Your task to perform on an android device: Clear all items from cart on bestbuy. Add asus zenbook to the cart on bestbuy, then select checkout. Image 0: 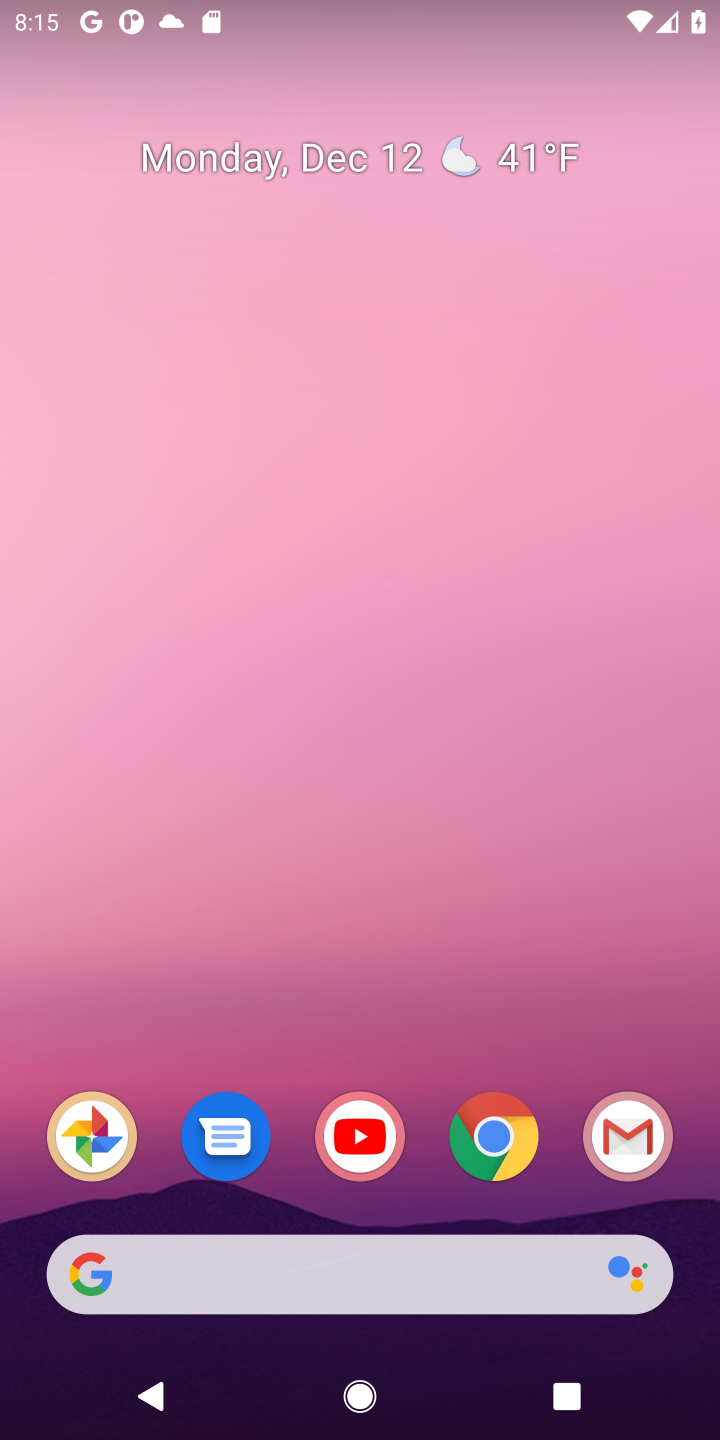
Step 0: click (508, 1144)
Your task to perform on an android device: Clear all items from cart on bestbuy. Add asus zenbook to the cart on bestbuy, then select checkout. Image 1: 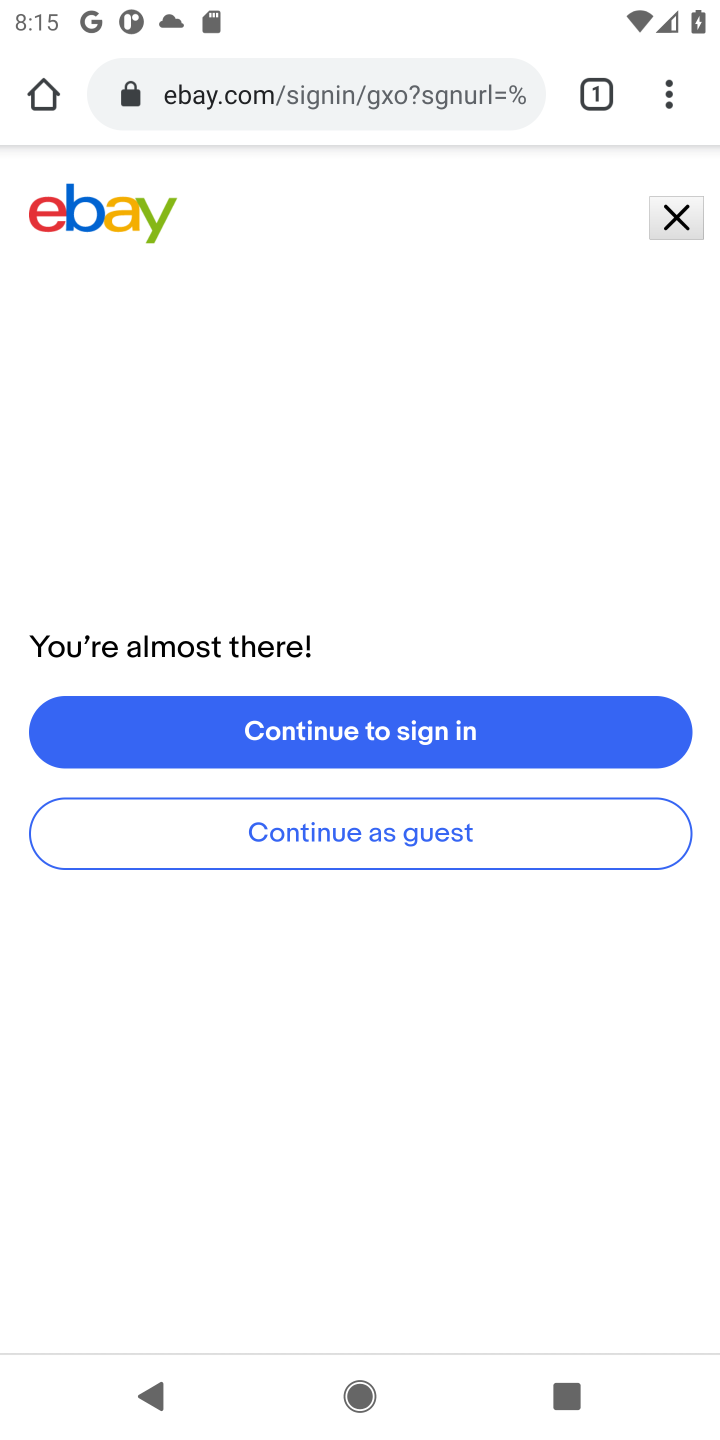
Step 1: click (292, 102)
Your task to perform on an android device: Clear all items from cart on bestbuy. Add asus zenbook to the cart on bestbuy, then select checkout. Image 2: 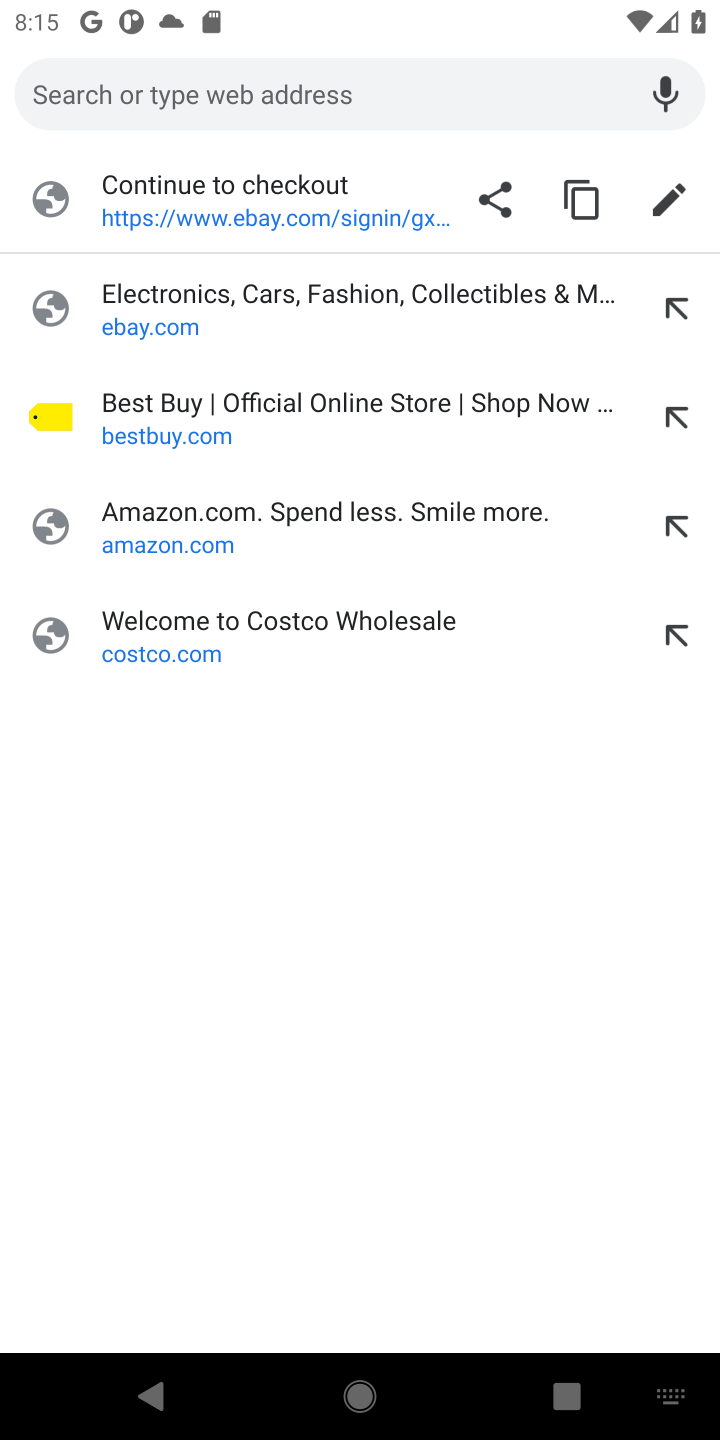
Step 2: click (156, 436)
Your task to perform on an android device: Clear all items from cart on bestbuy. Add asus zenbook to the cart on bestbuy, then select checkout. Image 3: 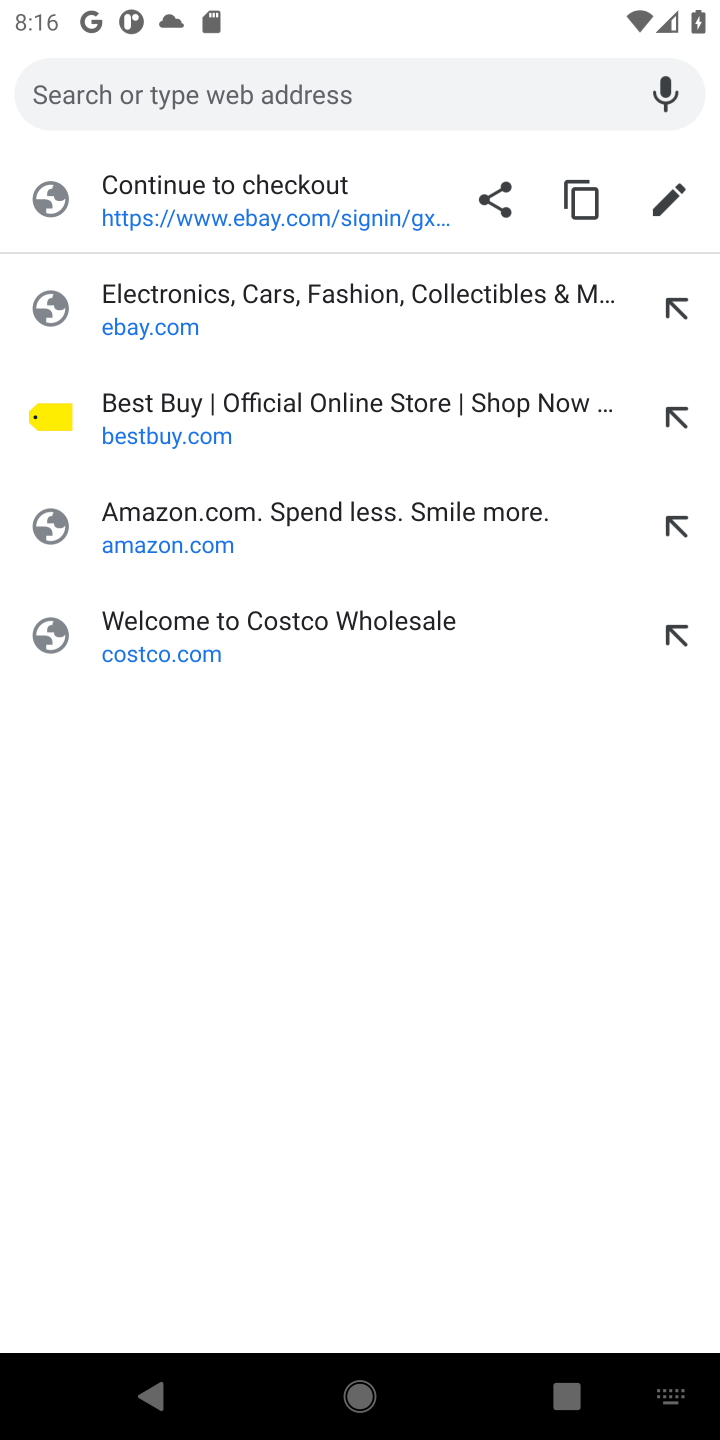
Step 3: click (134, 405)
Your task to perform on an android device: Clear all items from cart on bestbuy. Add asus zenbook to the cart on bestbuy, then select checkout. Image 4: 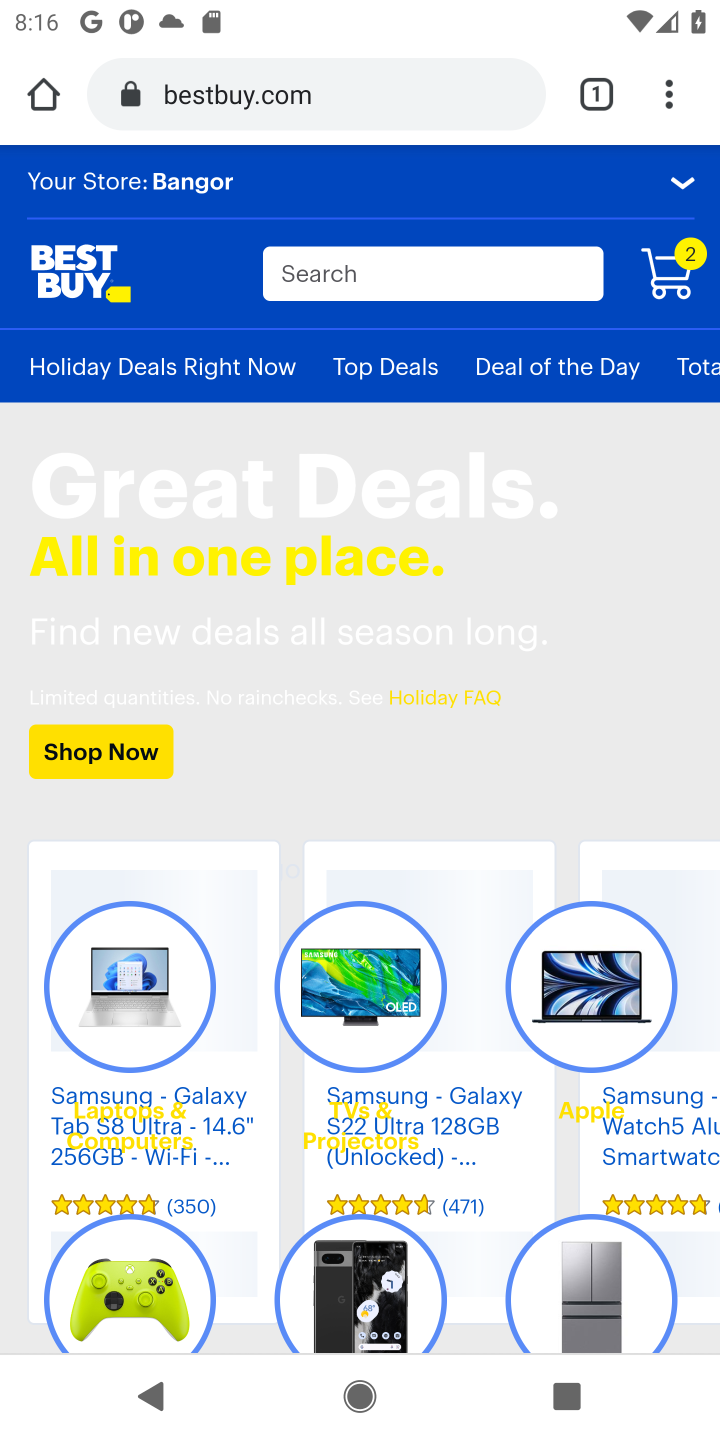
Step 4: click (676, 277)
Your task to perform on an android device: Clear all items from cart on bestbuy. Add asus zenbook to the cart on bestbuy, then select checkout. Image 5: 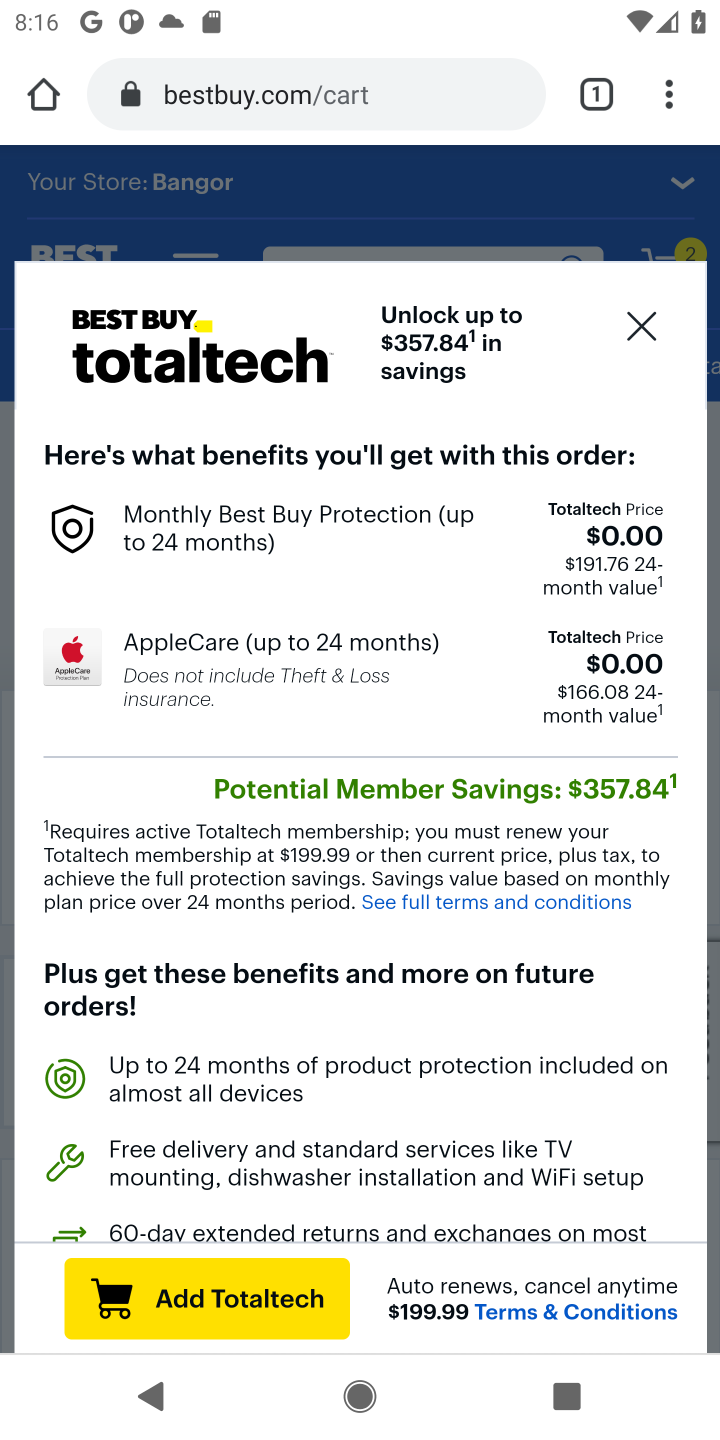
Step 5: click (641, 332)
Your task to perform on an android device: Clear all items from cart on bestbuy. Add asus zenbook to the cart on bestbuy, then select checkout. Image 6: 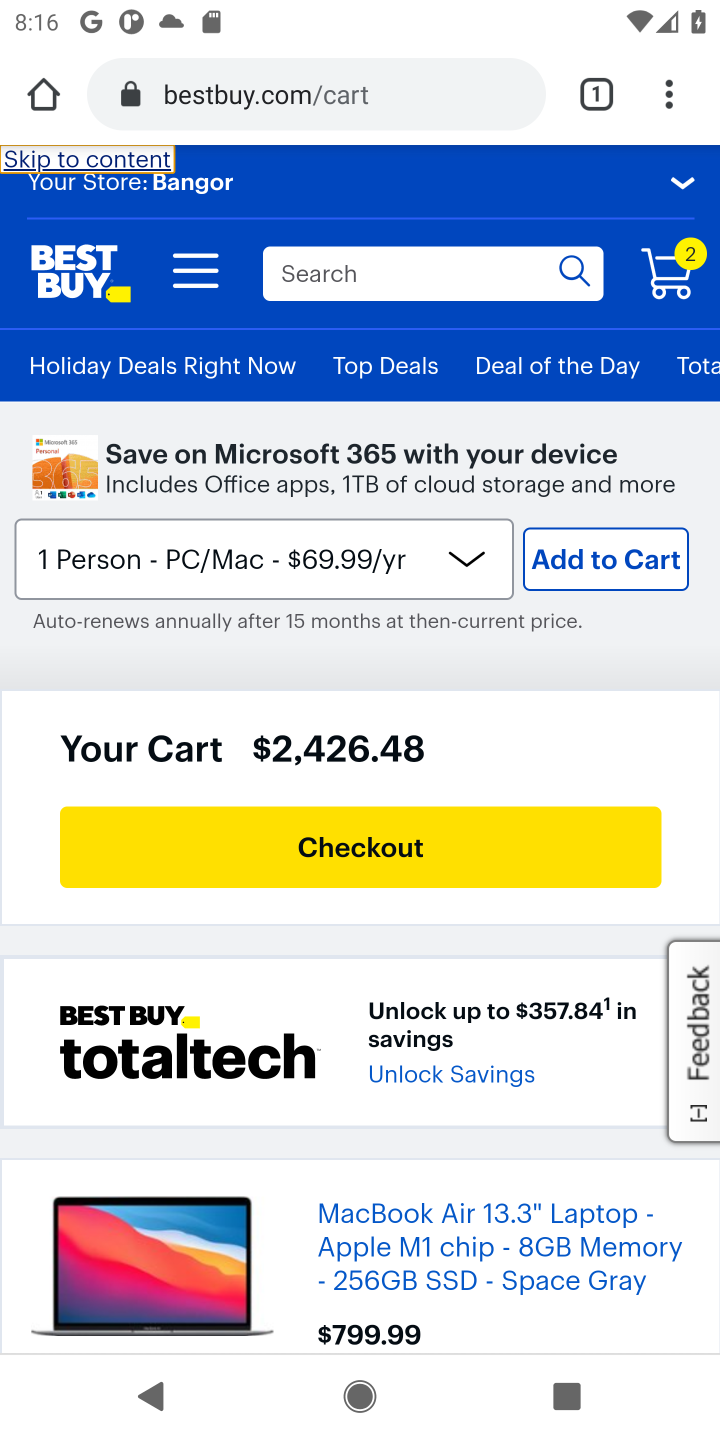
Step 6: drag from (327, 906) to (404, 495)
Your task to perform on an android device: Clear all items from cart on bestbuy. Add asus zenbook to the cart on bestbuy, then select checkout. Image 7: 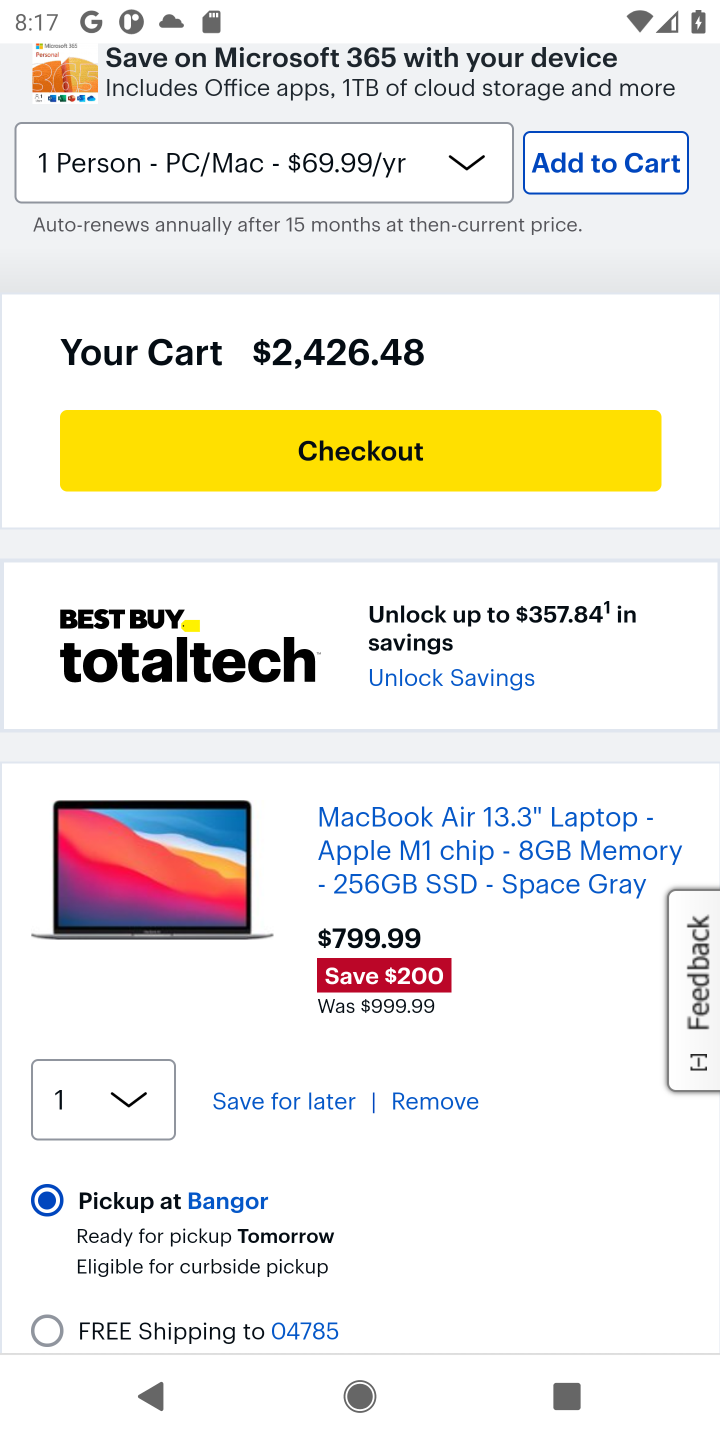
Step 7: click (441, 1110)
Your task to perform on an android device: Clear all items from cart on bestbuy. Add asus zenbook to the cart on bestbuy, then select checkout. Image 8: 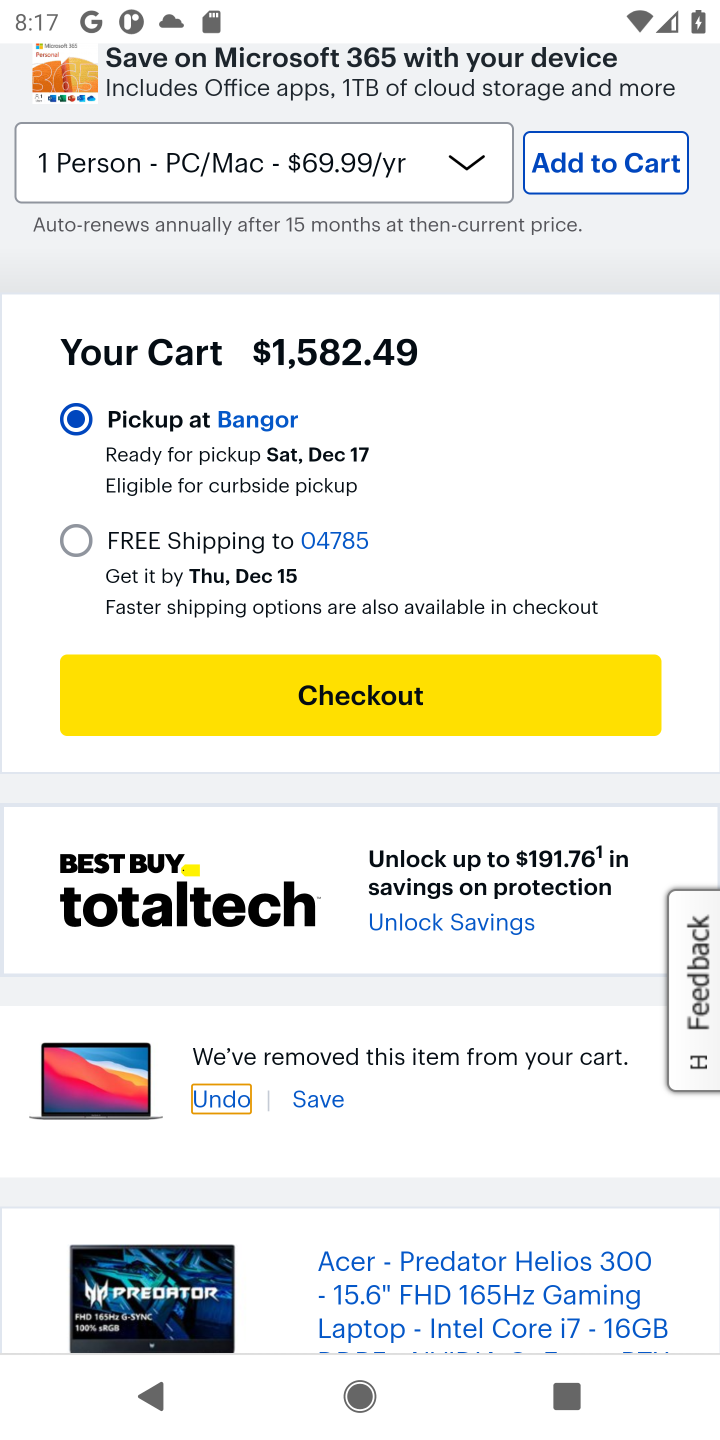
Step 8: drag from (443, 1075) to (438, 633)
Your task to perform on an android device: Clear all items from cart on bestbuy. Add asus zenbook to the cart on bestbuy, then select checkout. Image 9: 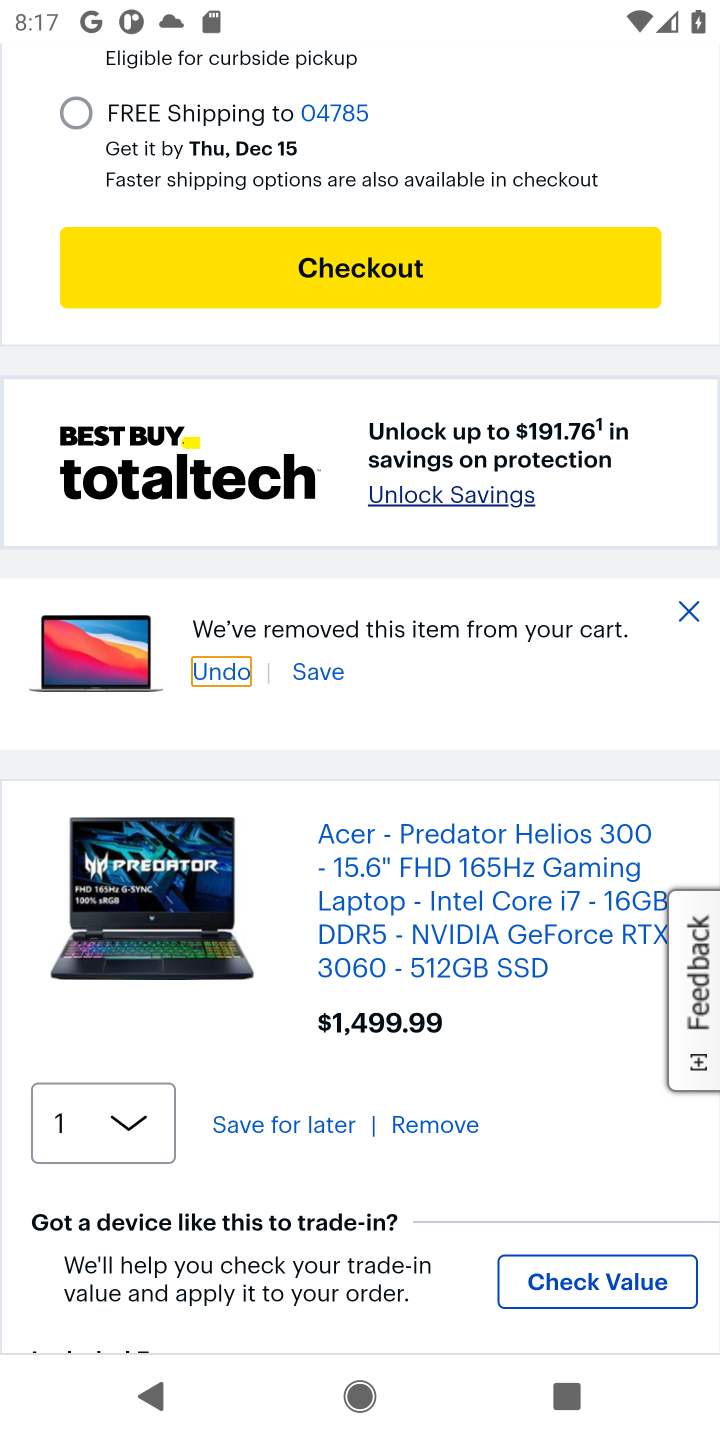
Step 9: click (425, 1119)
Your task to perform on an android device: Clear all items from cart on bestbuy. Add asus zenbook to the cart on bestbuy, then select checkout. Image 10: 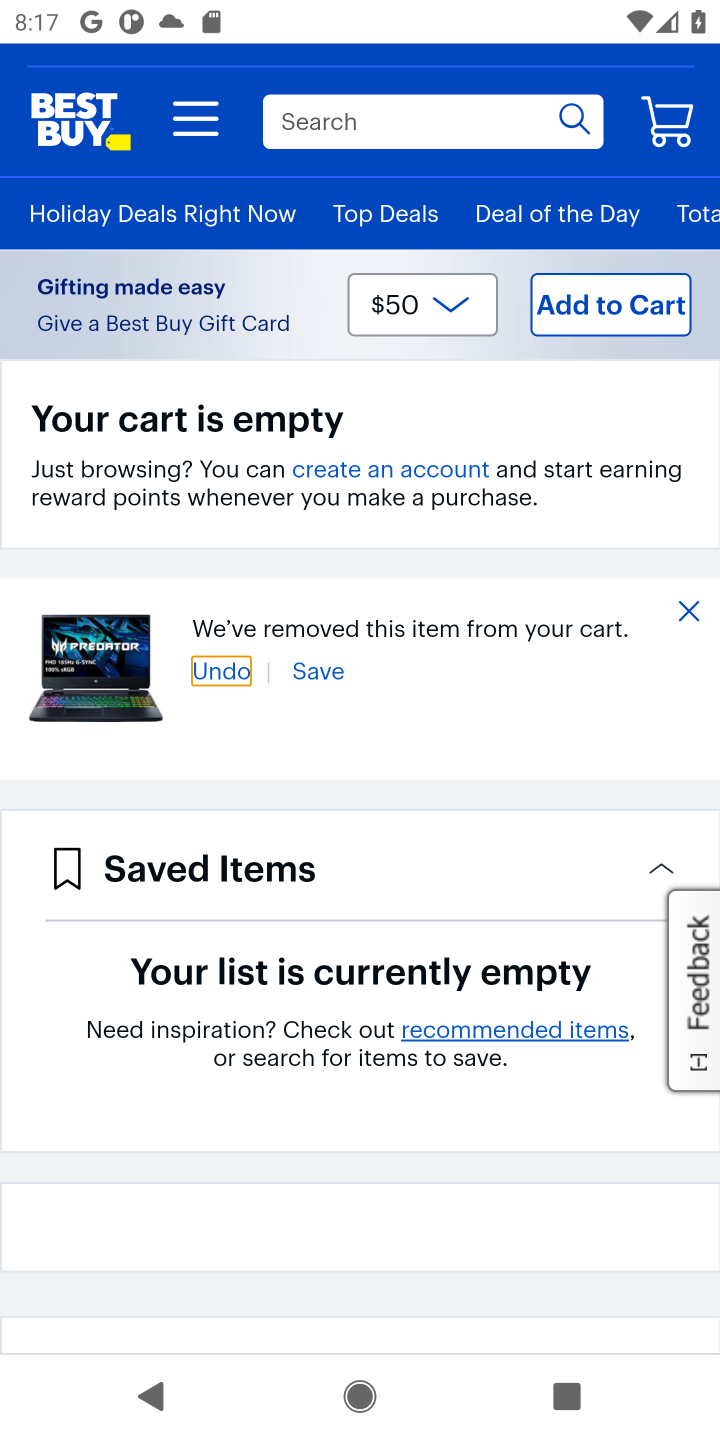
Step 10: drag from (353, 639) to (354, 940)
Your task to perform on an android device: Clear all items from cart on bestbuy. Add asus zenbook to the cart on bestbuy, then select checkout. Image 11: 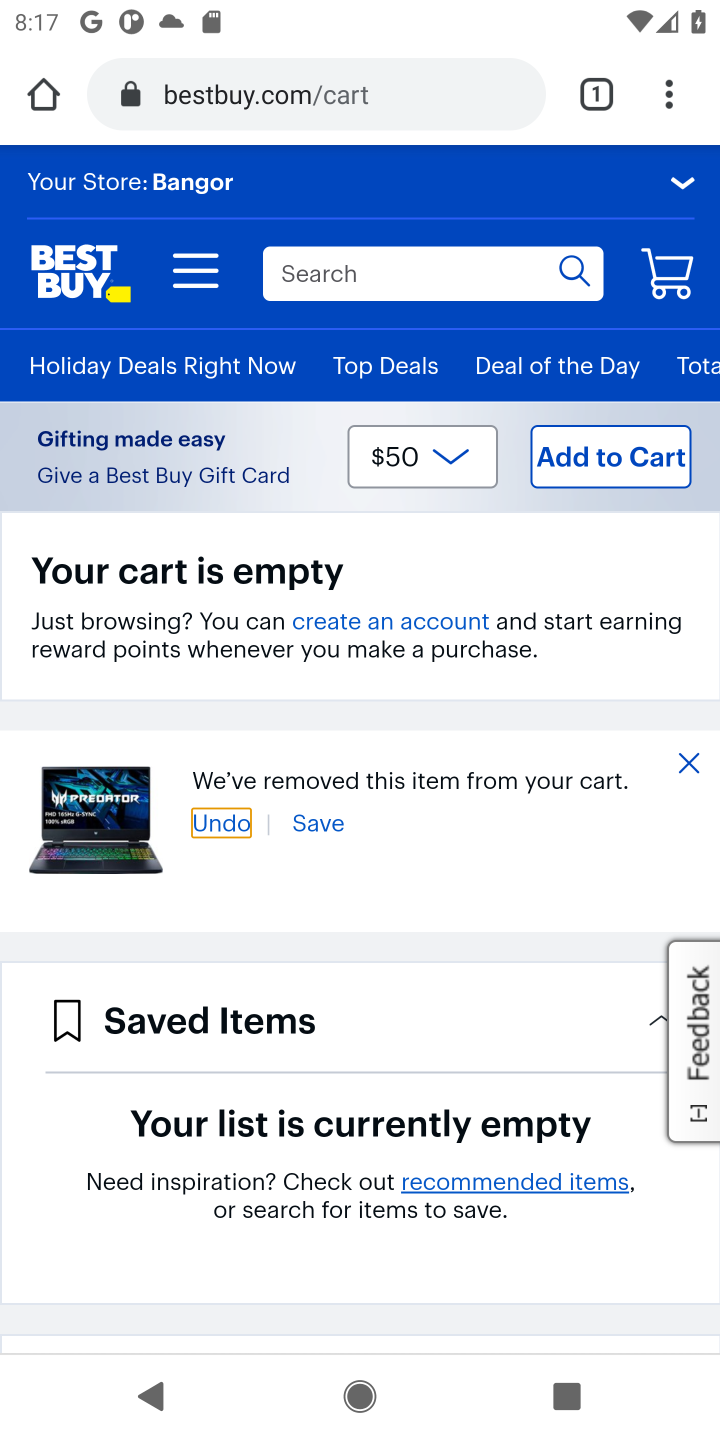
Step 11: click (335, 282)
Your task to perform on an android device: Clear all items from cart on bestbuy. Add asus zenbook to the cart on bestbuy, then select checkout. Image 12: 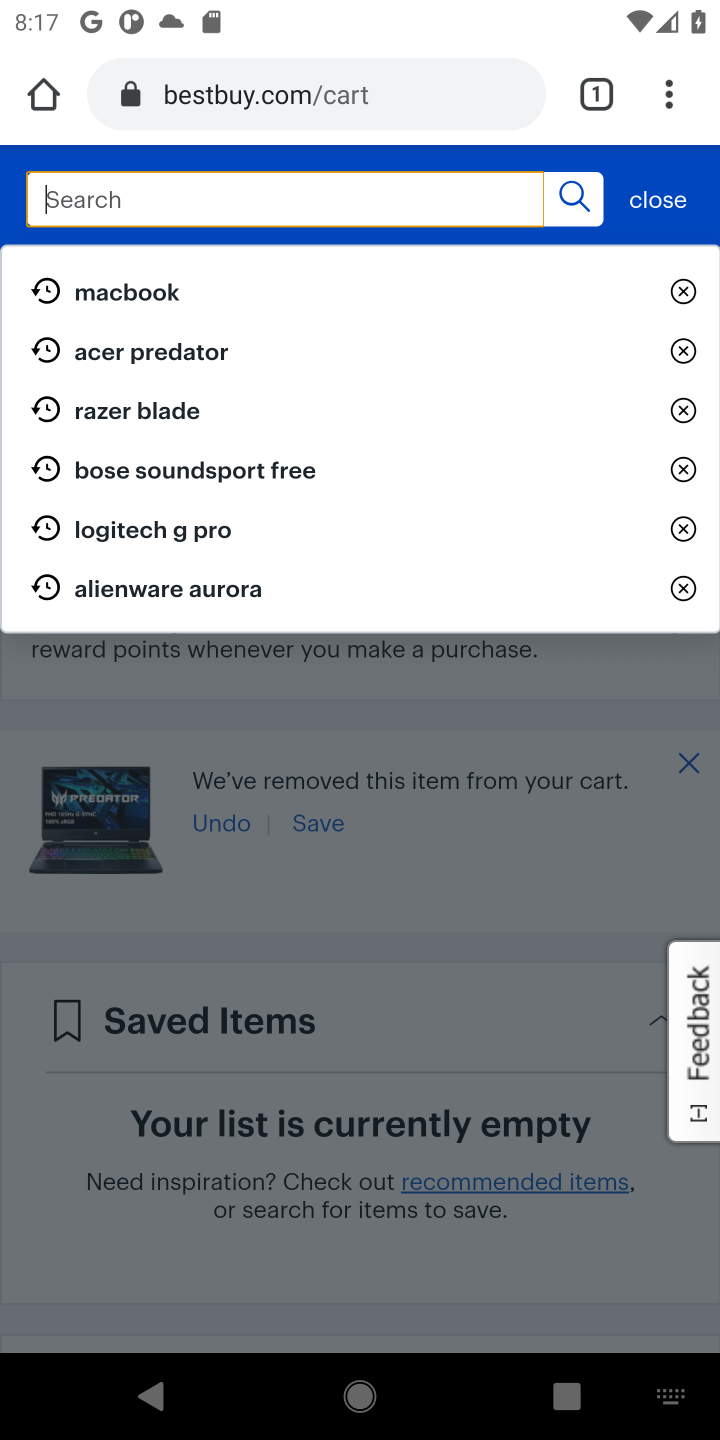
Step 12: type "asus zenbook "
Your task to perform on an android device: Clear all items from cart on bestbuy. Add asus zenbook to the cart on bestbuy, then select checkout. Image 13: 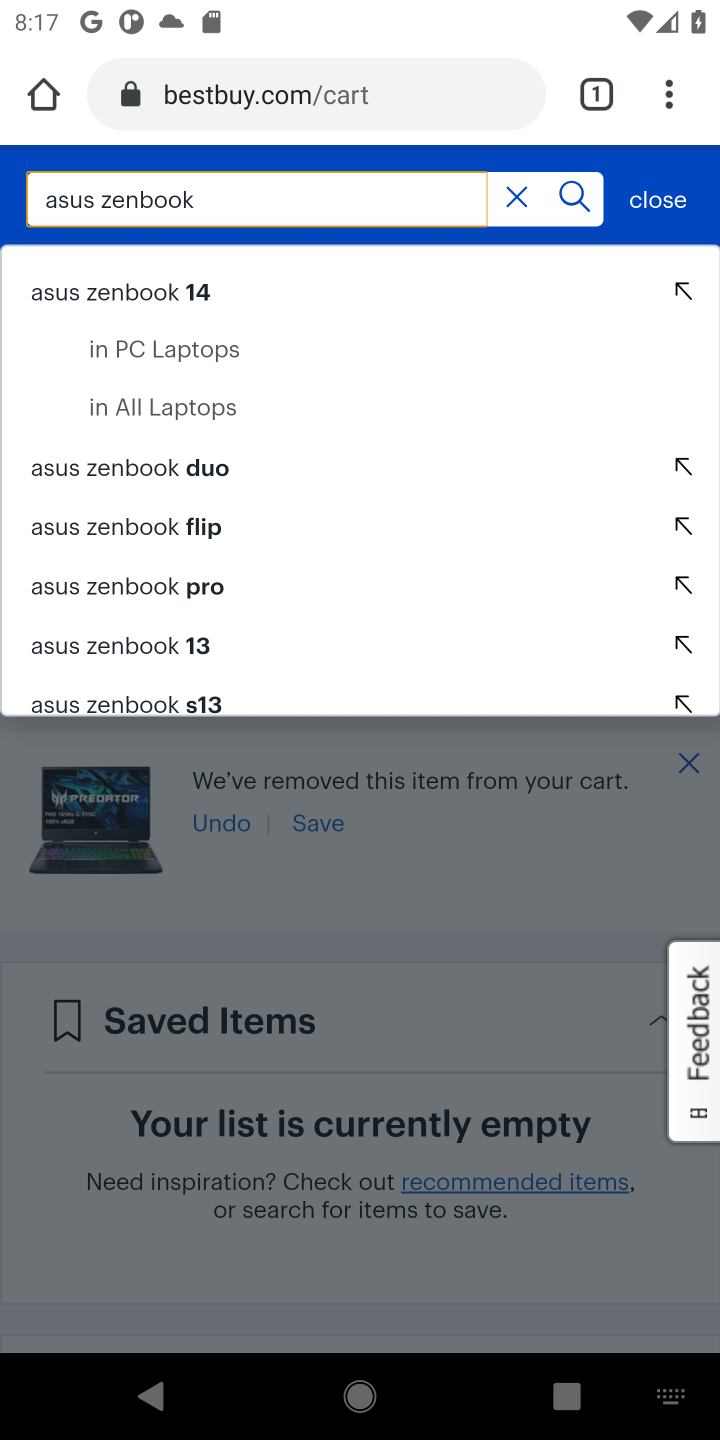
Step 13: click (567, 208)
Your task to perform on an android device: Clear all items from cart on bestbuy. Add asus zenbook to the cart on bestbuy, then select checkout. Image 14: 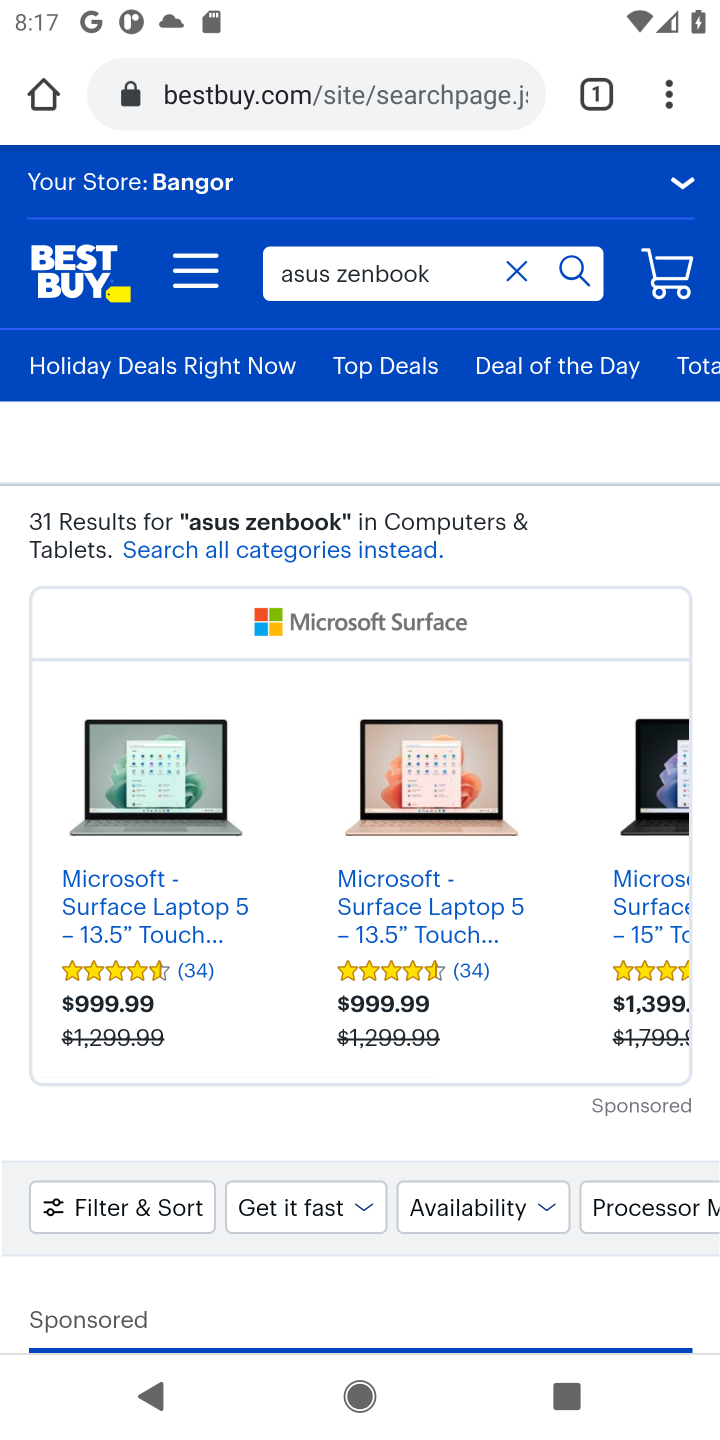
Step 14: drag from (322, 994) to (286, 421)
Your task to perform on an android device: Clear all items from cart on bestbuy. Add asus zenbook to the cart on bestbuy, then select checkout. Image 15: 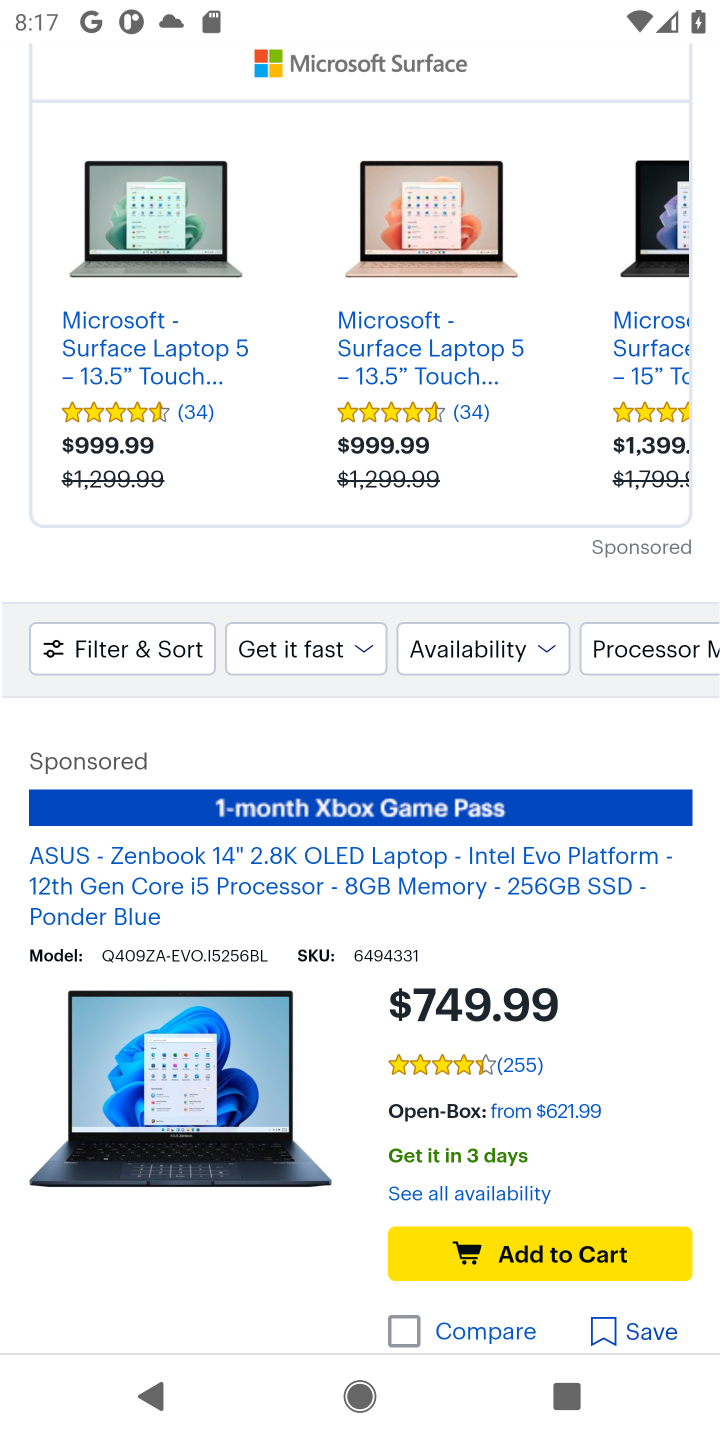
Step 15: drag from (319, 947) to (323, 594)
Your task to perform on an android device: Clear all items from cart on bestbuy. Add asus zenbook to the cart on bestbuy, then select checkout. Image 16: 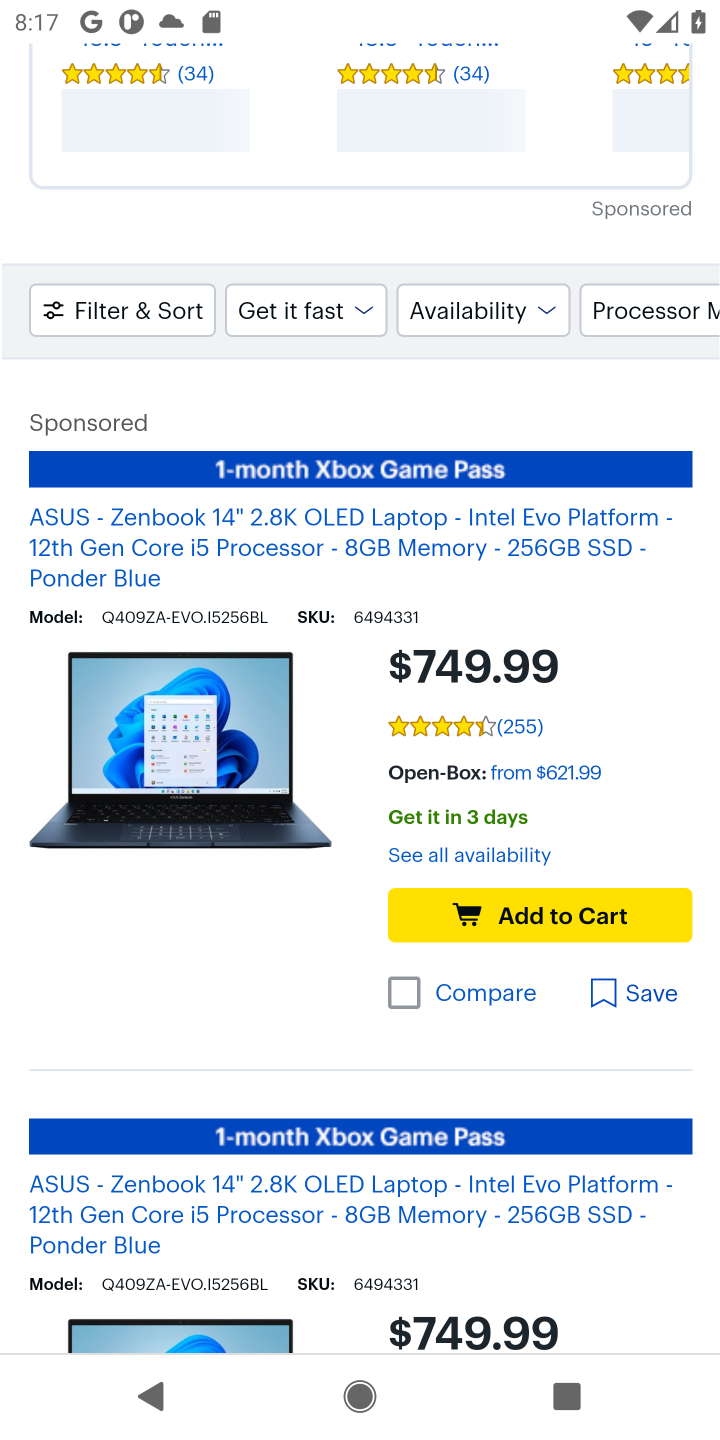
Step 16: click (534, 930)
Your task to perform on an android device: Clear all items from cart on bestbuy. Add asus zenbook to the cart on bestbuy, then select checkout. Image 17: 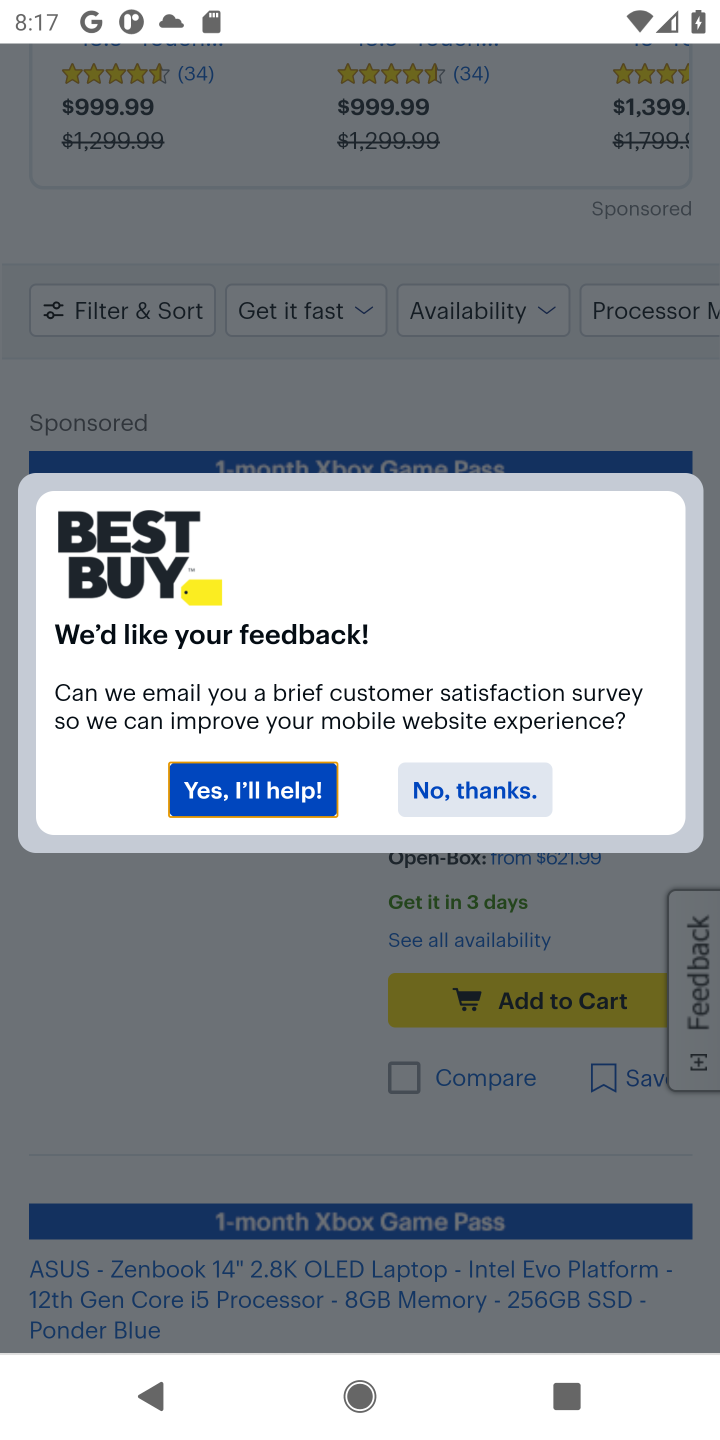
Step 17: click (438, 794)
Your task to perform on an android device: Clear all items from cart on bestbuy. Add asus zenbook to the cart on bestbuy, then select checkout. Image 18: 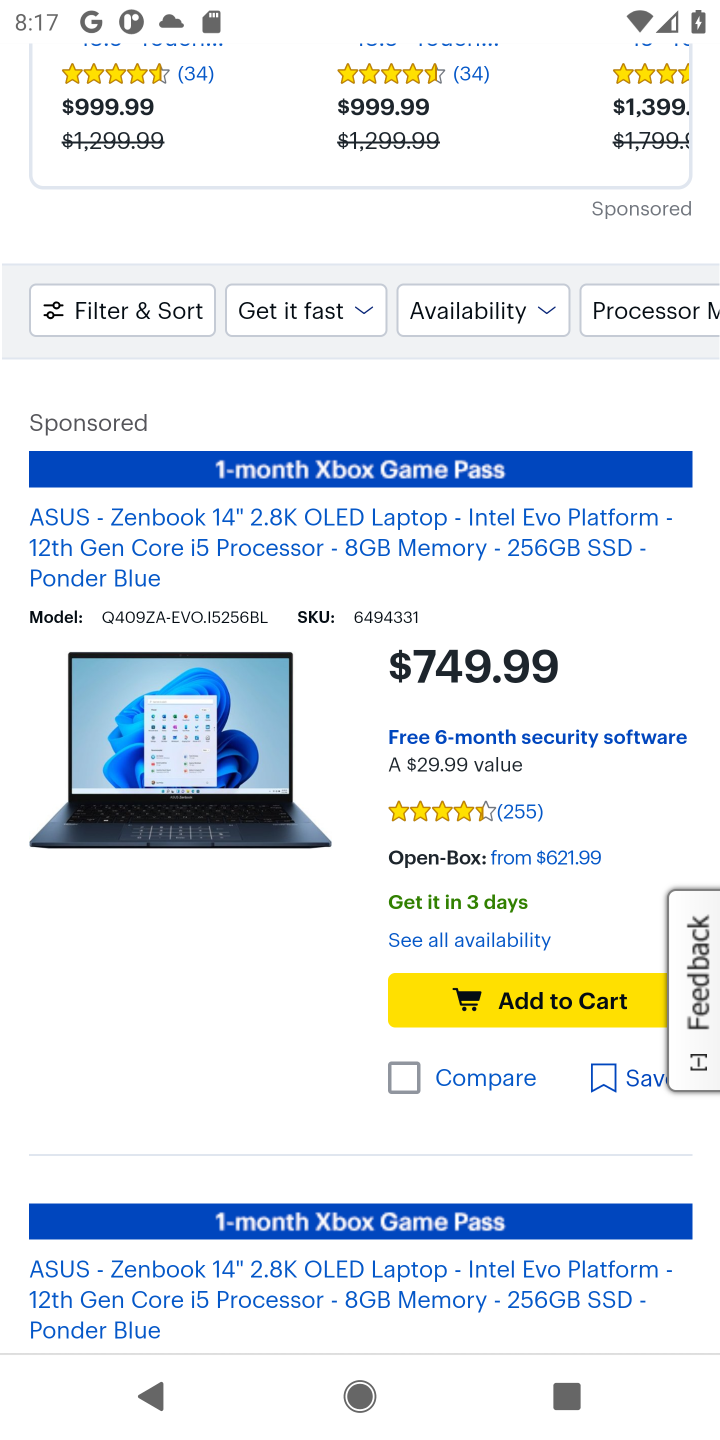
Step 18: click (505, 1006)
Your task to perform on an android device: Clear all items from cart on bestbuy. Add asus zenbook to the cart on bestbuy, then select checkout. Image 19: 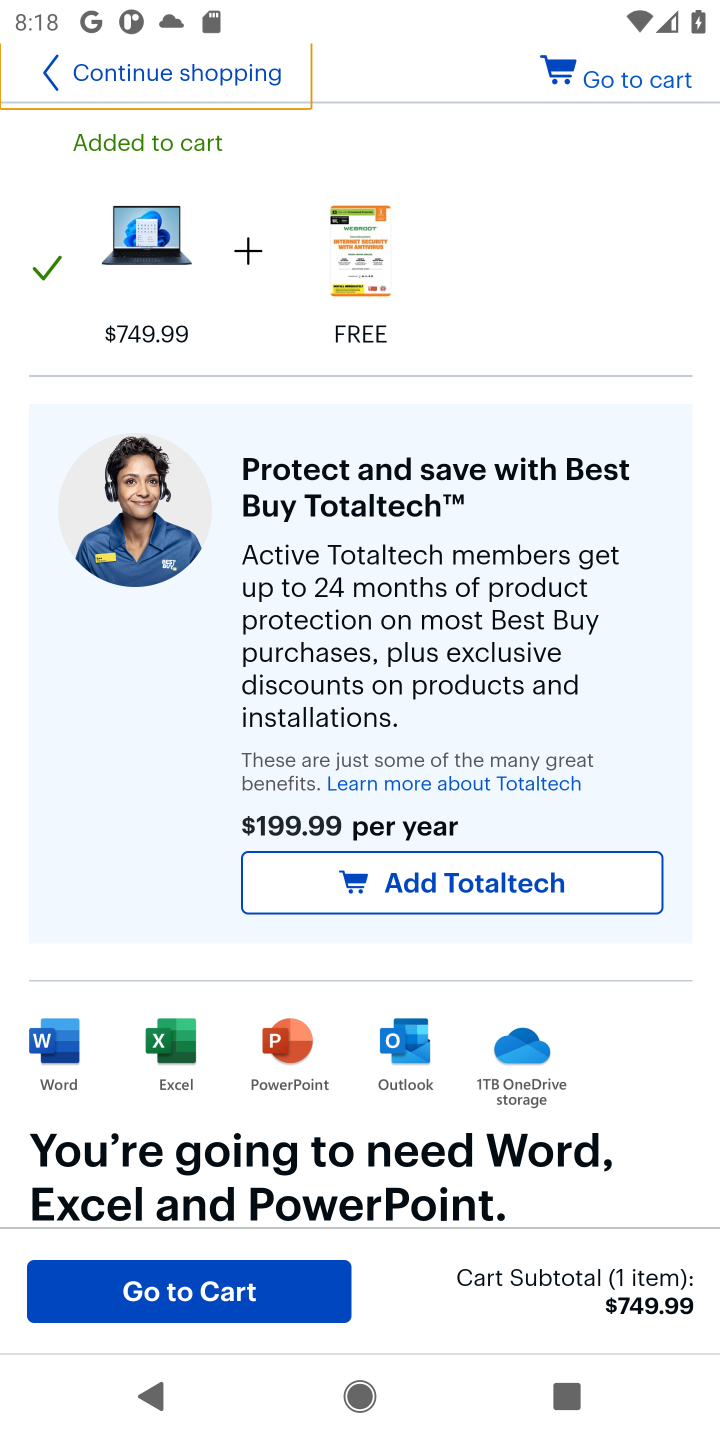
Step 19: click (627, 85)
Your task to perform on an android device: Clear all items from cart on bestbuy. Add asus zenbook to the cart on bestbuy, then select checkout. Image 20: 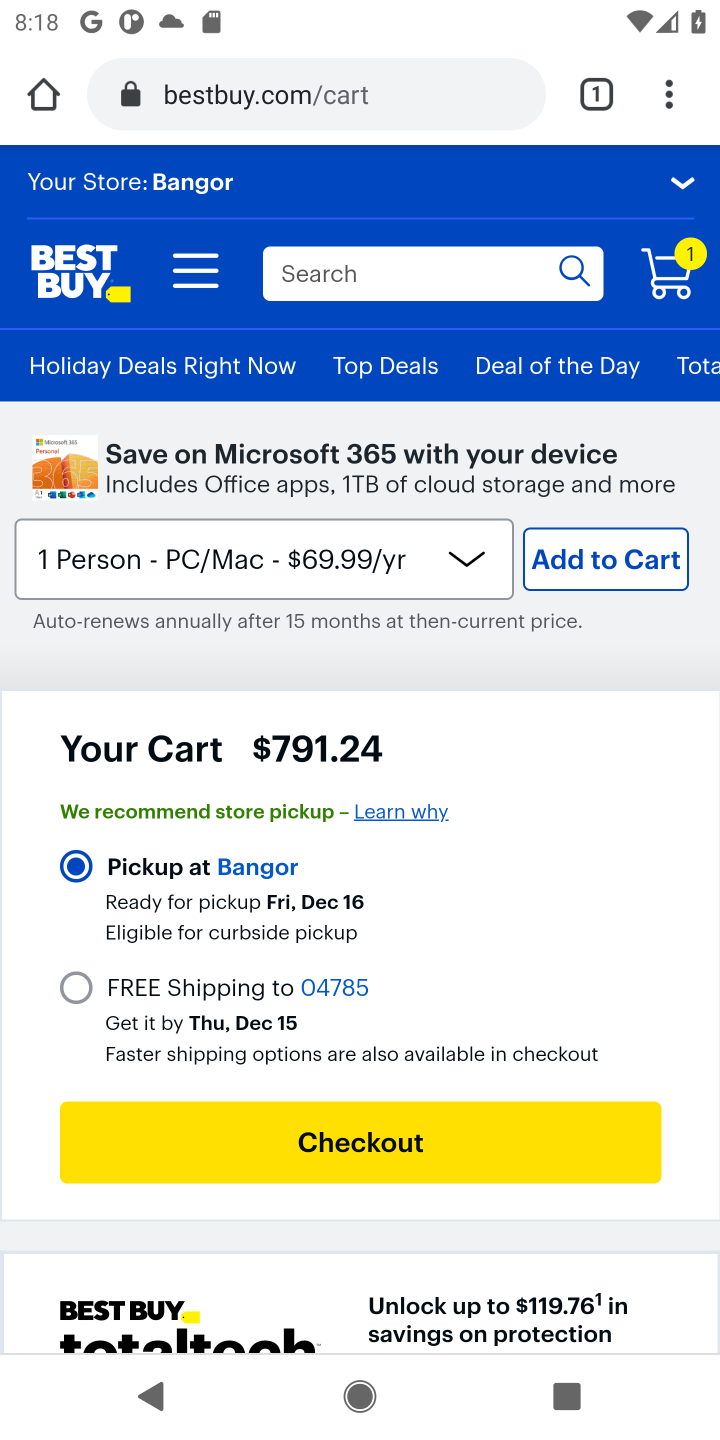
Step 20: click (348, 1152)
Your task to perform on an android device: Clear all items from cart on bestbuy. Add asus zenbook to the cart on bestbuy, then select checkout. Image 21: 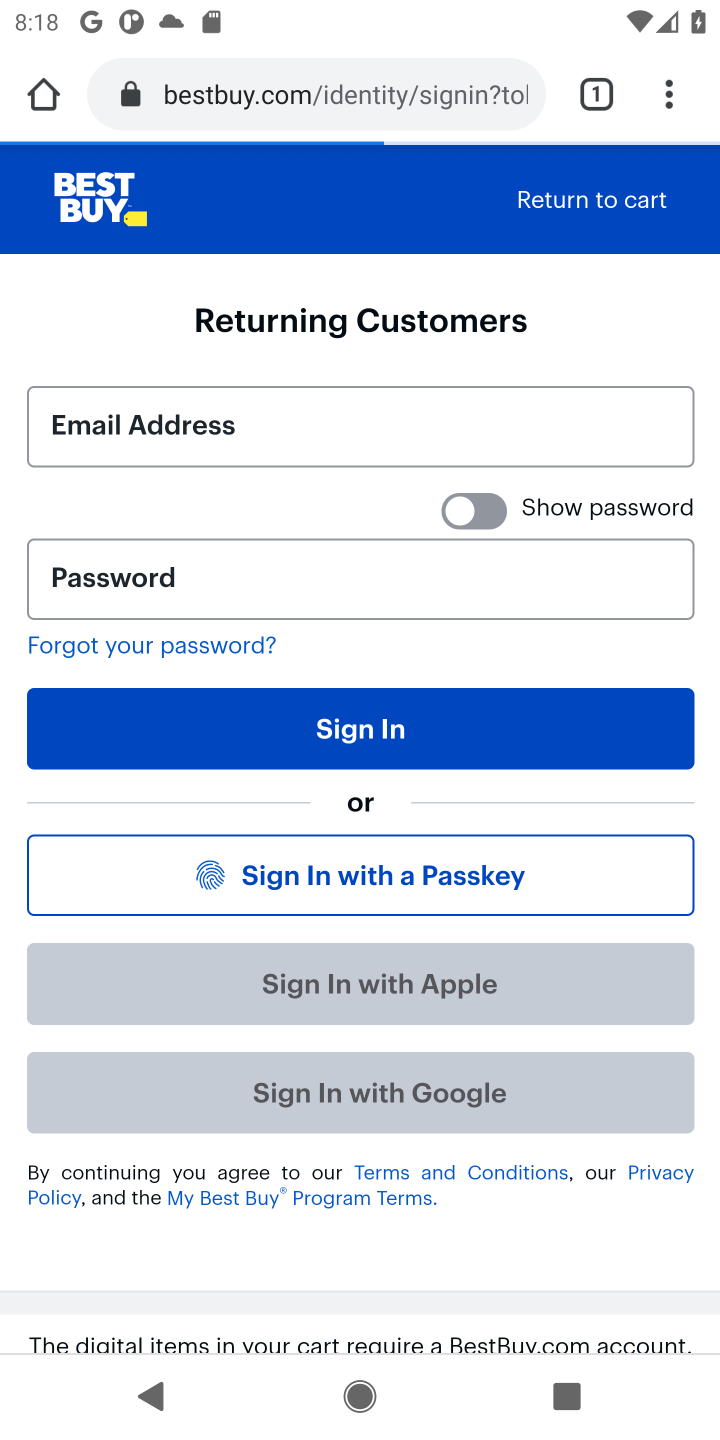
Step 21: task complete